Your task to perform on an android device: Open Google Maps Image 0: 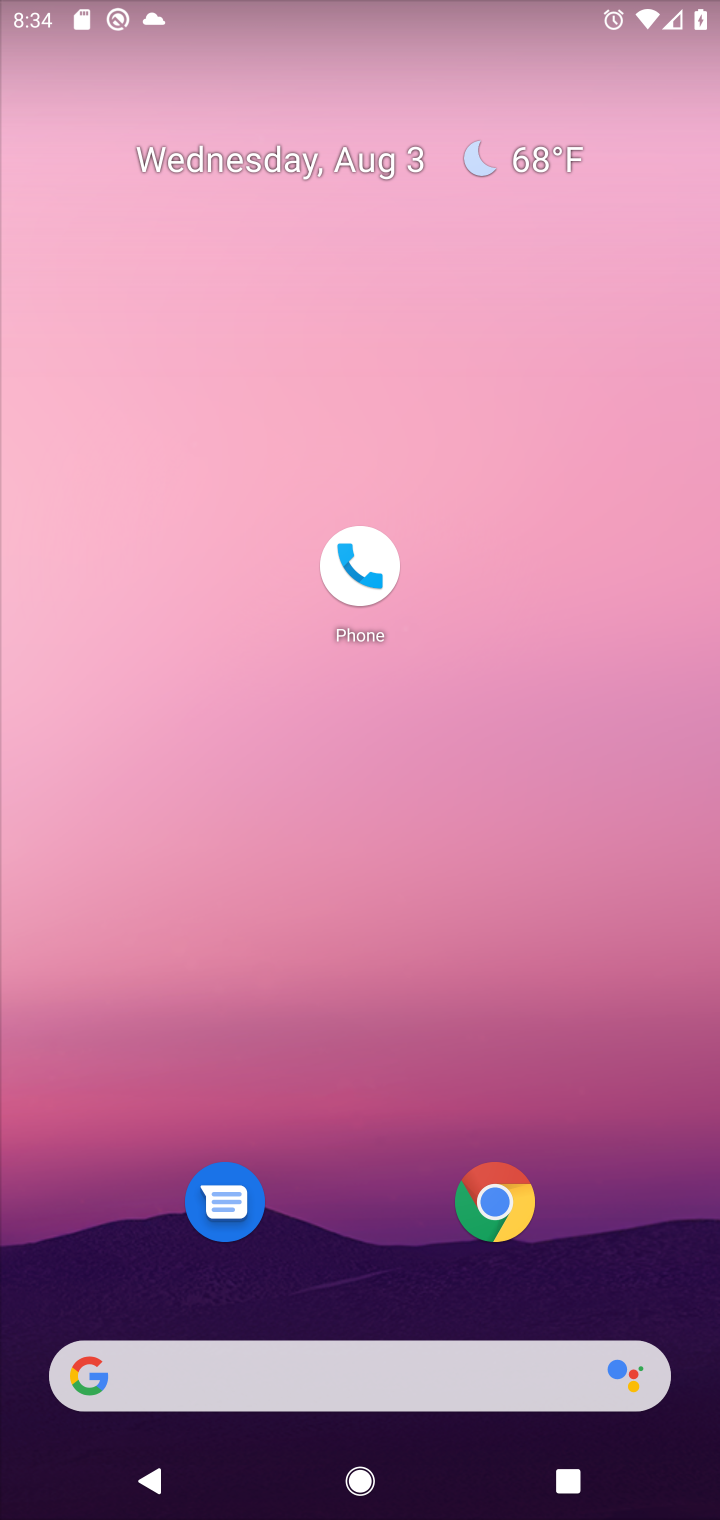
Step 0: drag from (322, 1334) to (288, 205)
Your task to perform on an android device: Open Google Maps Image 1: 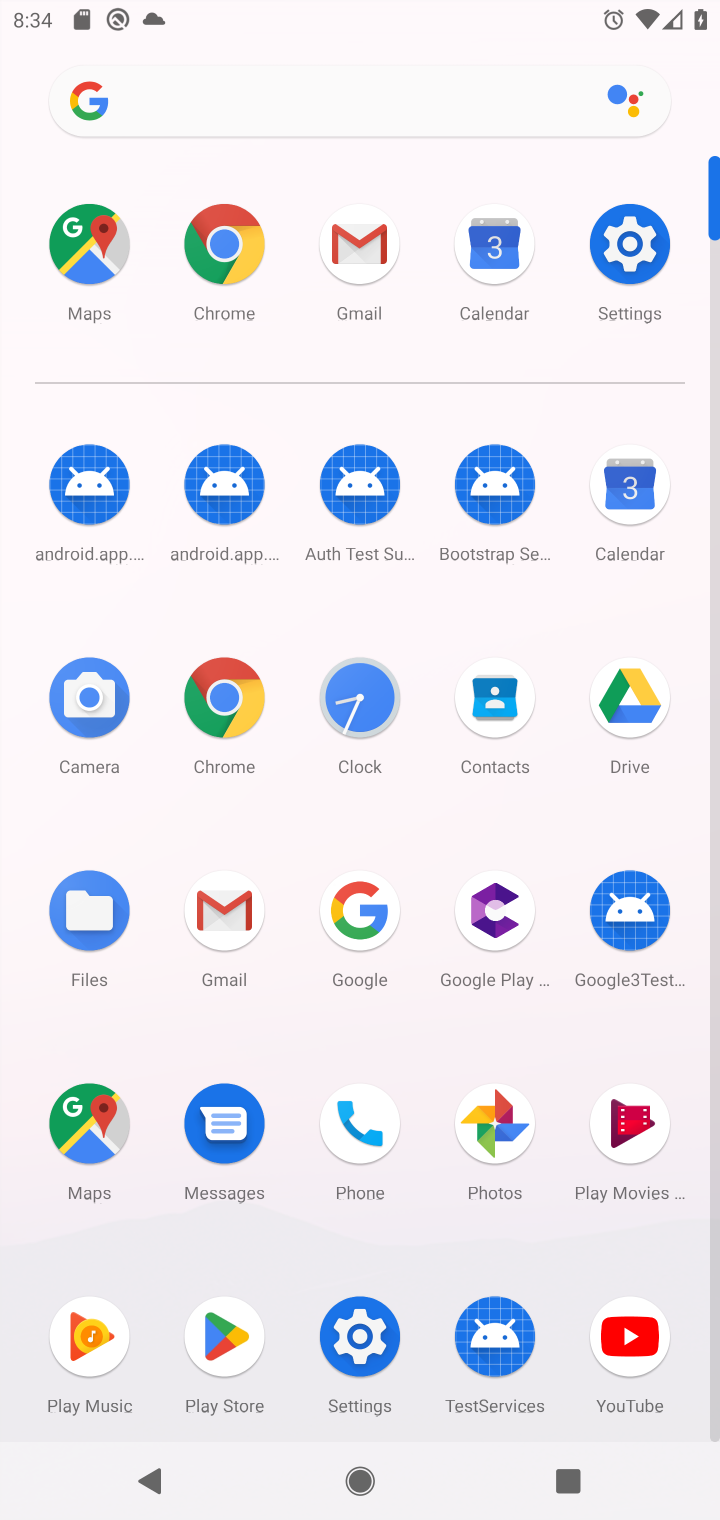
Step 1: click (85, 247)
Your task to perform on an android device: Open Google Maps Image 2: 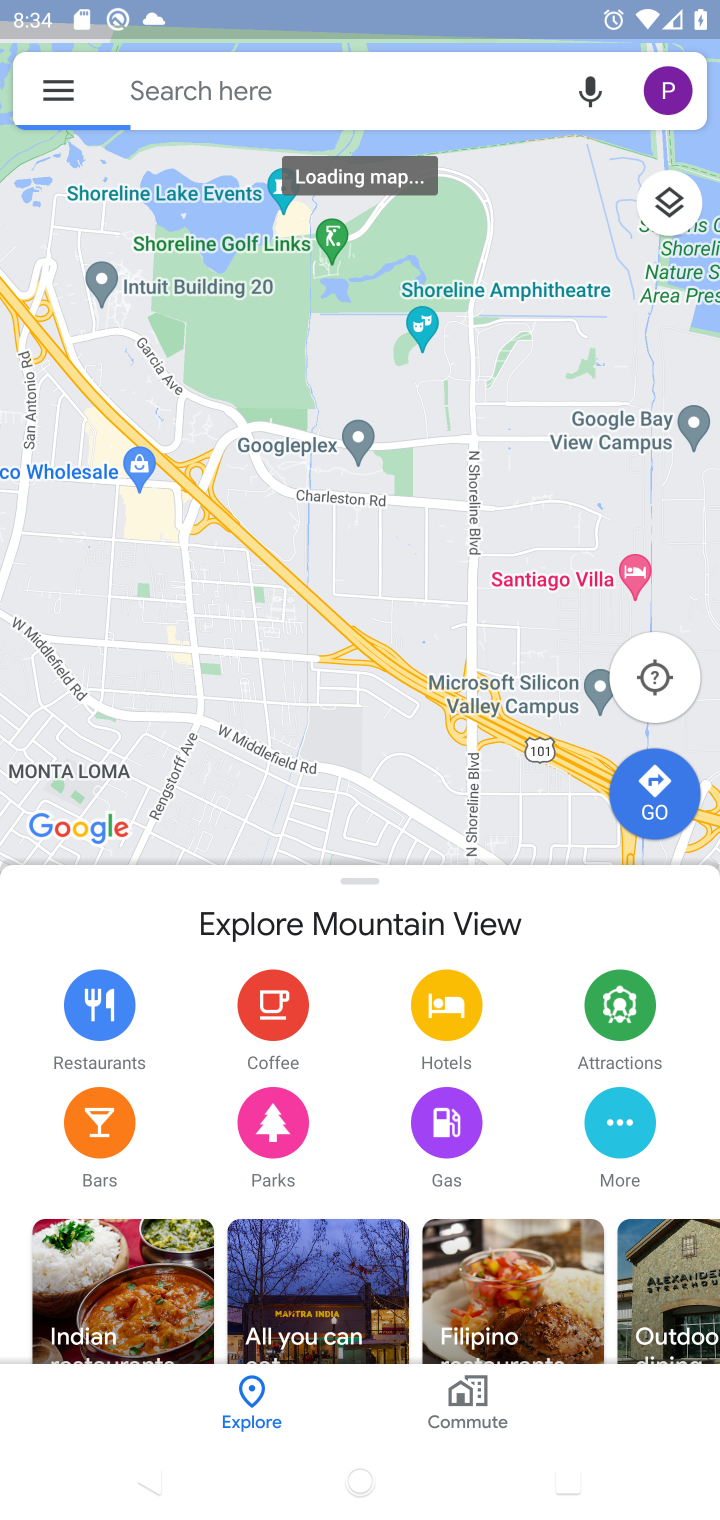
Step 2: task complete